Your task to perform on an android device: Toggle the flashlight Image 0: 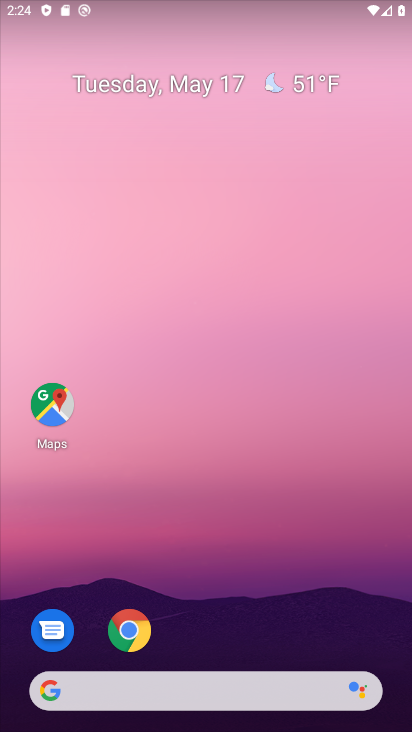
Step 0: drag from (225, 643) to (152, 123)
Your task to perform on an android device: Toggle the flashlight Image 1: 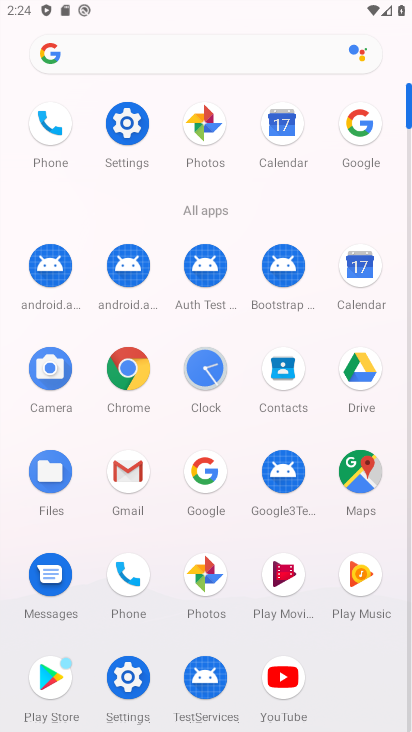
Step 1: click (122, 155)
Your task to perform on an android device: Toggle the flashlight Image 2: 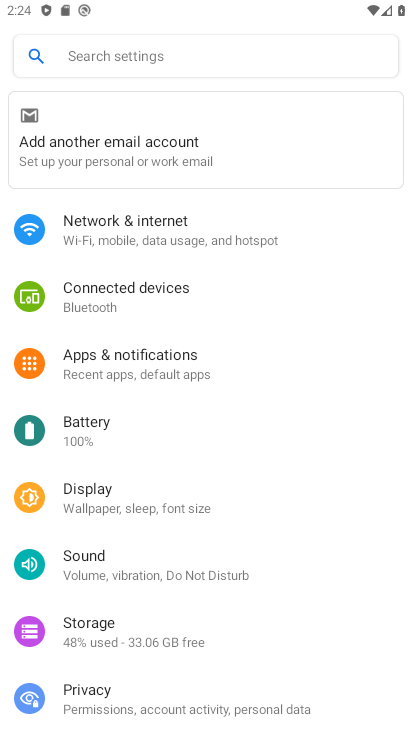
Step 2: task complete